Your task to perform on an android device: Go to battery settings Image 0: 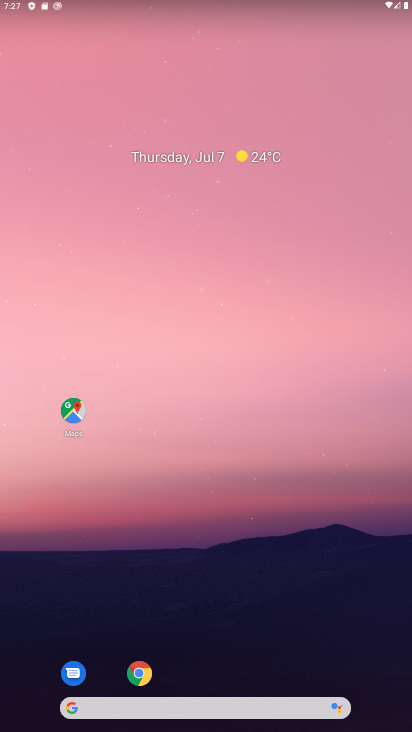
Step 0: drag from (43, 570) to (245, 88)
Your task to perform on an android device: Go to battery settings Image 1: 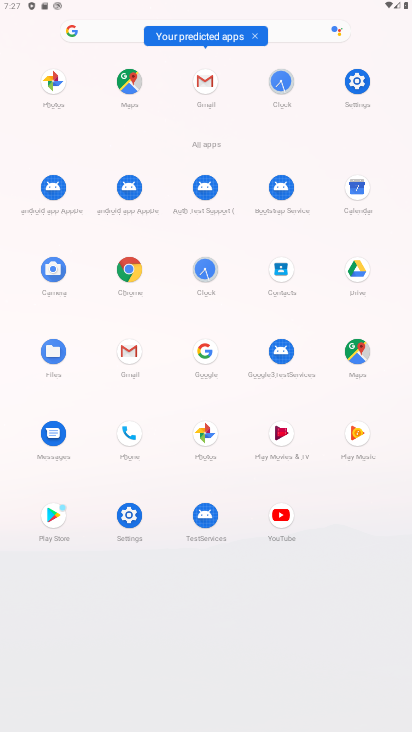
Step 1: click (350, 76)
Your task to perform on an android device: Go to battery settings Image 2: 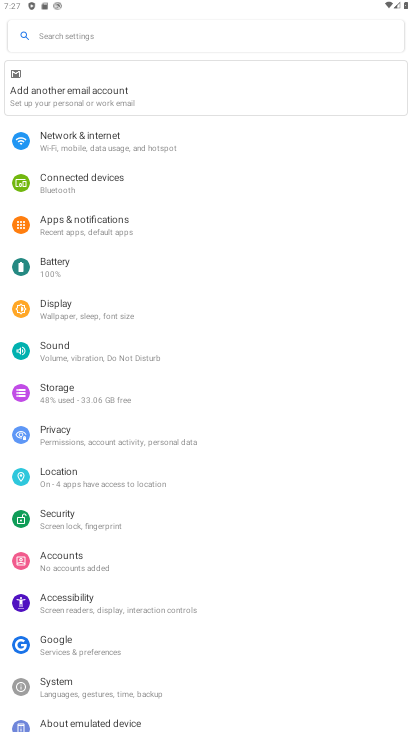
Step 2: click (107, 263)
Your task to perform on an android device: Go to battery settings Image 3: 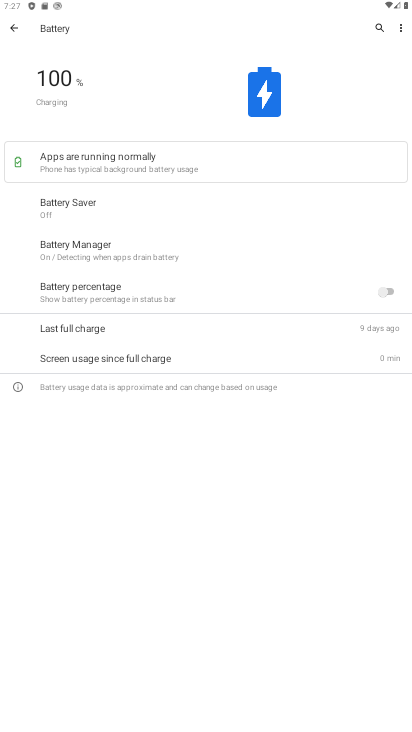
Step 3: task complete